Your task to perform on an android device: Go to Yahoo.com Image 0: 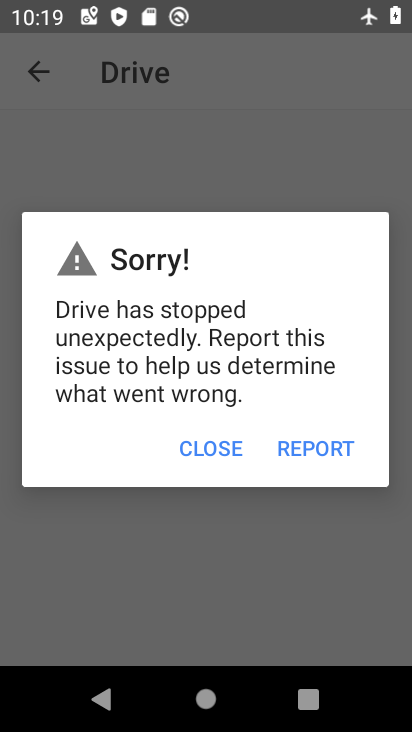
Step 0: press home button
Your task to perform on an android device: Go to Yahoo.com Image 1: 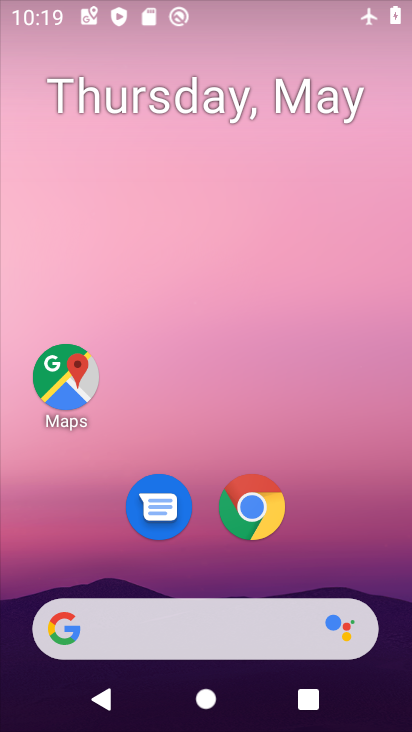
Step 1: drag from (254, 645) to (283, 165)
Your task to perform on an android device: Go to Yahoo.com Image 2: 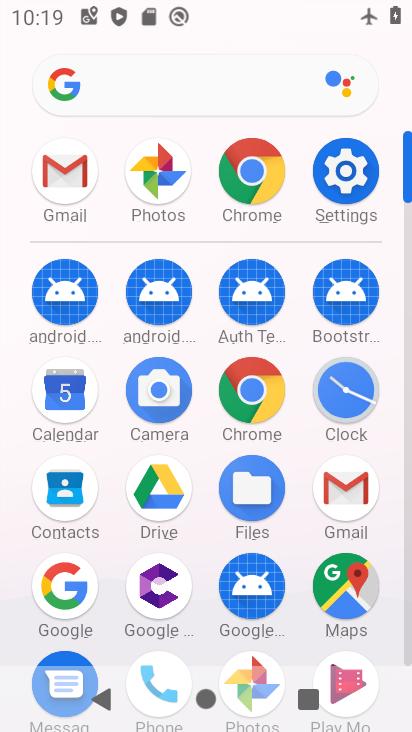
Step 2: click (262, 186)
Your task to perform on an android device: Go to Yahoo.com Image 3: 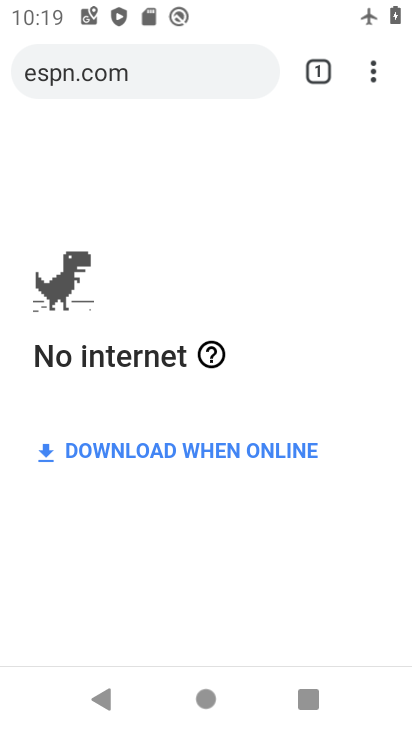
Step 3: click (225, 71)
Your task to perform on an android device: Go to Yahoo.com Image 4: 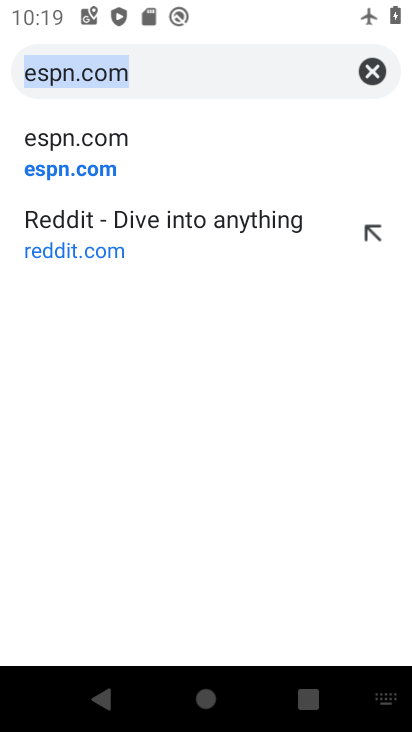
Step 4: type "yahoo.com"
Your task to perform on an android device: Go to Yahoo.com Image 5: 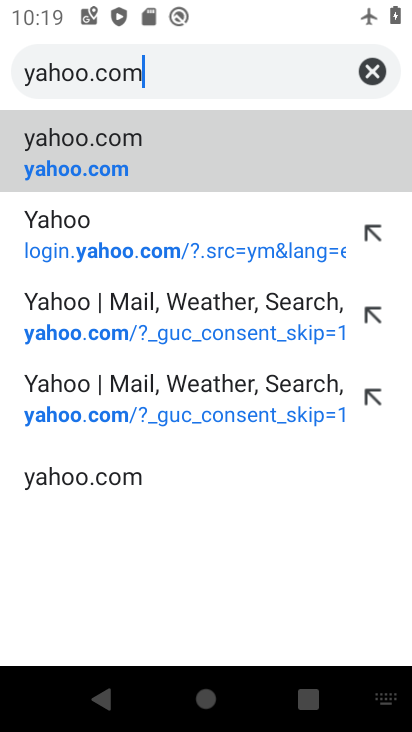
Step 5: click (166, 161)
Your task to perform on an android device: Go to Yahoo.com Image 6: 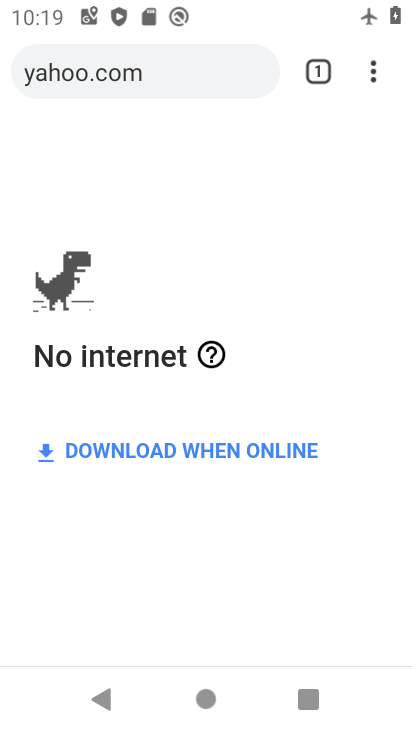
Step 6: task complete